Your task to perform on an android device: set default search engine in the chrome app Image 0: 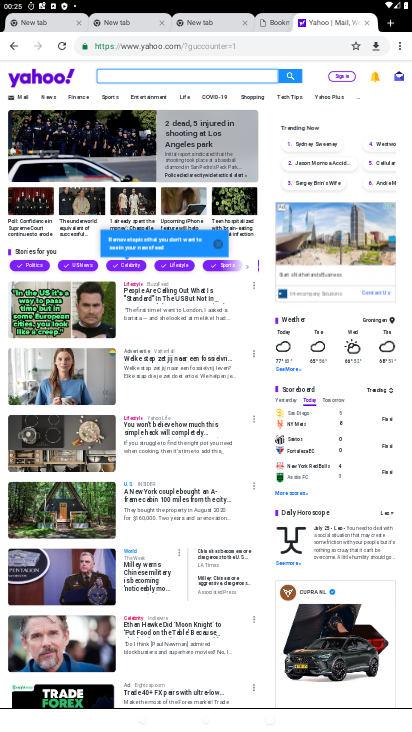
Step 0: click (398, 54)
Your task to perform on an android device: set default search engine in the chrome app Image 1: 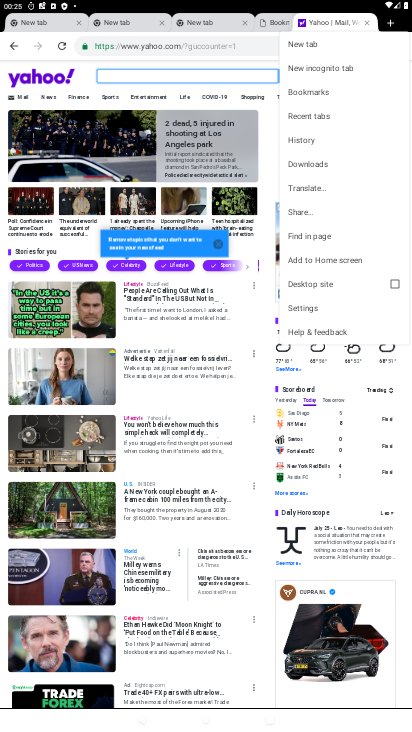
Step 1: click (306, 302)
Your task to perform on an android device: set default search engine in the chrome app Image 2: 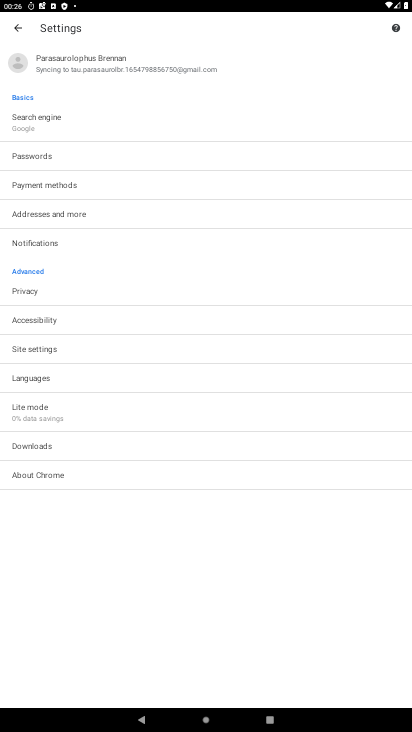
Step 2: click (47, 130)
Your task to perform on an android device: set default search engine in the chrome app Image 3: 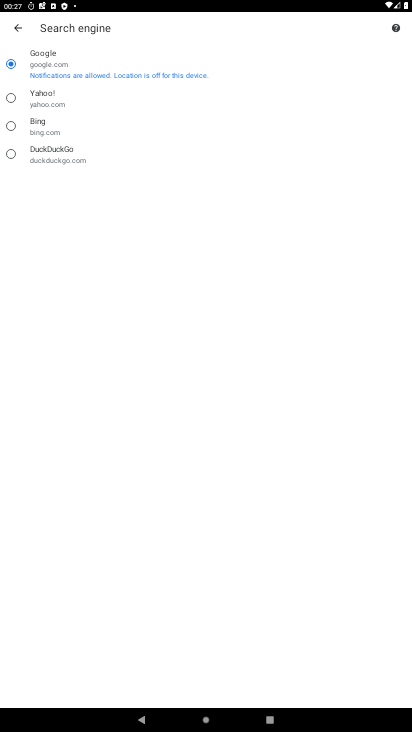
Step 3: task complete